Your task to perform on an android device: Go to Google Image 0: 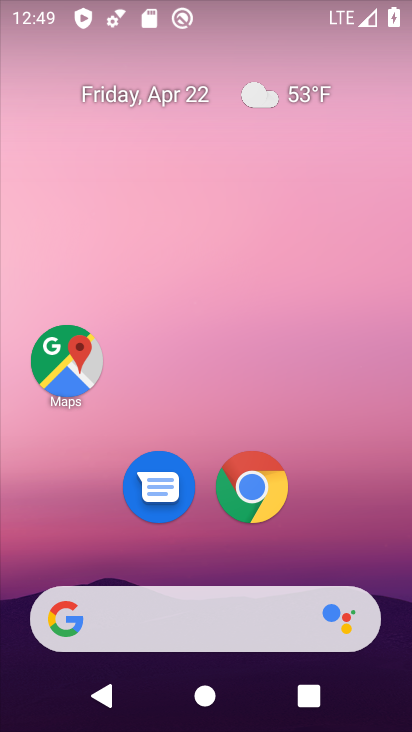
Step 0: click (224, 616)
Your task to perform on an android device: Go to Google Image 1: 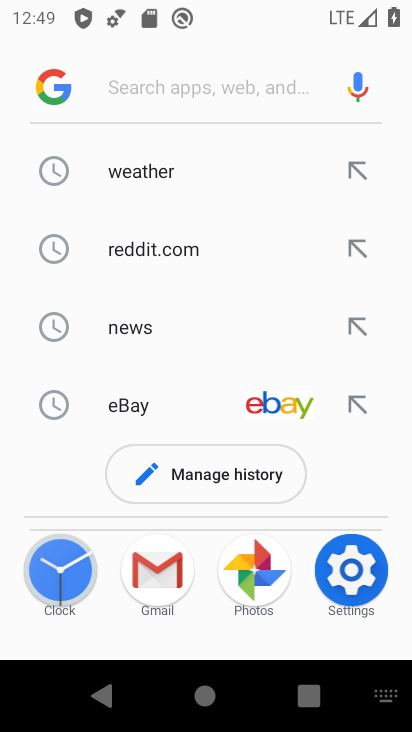
Step 1: task complete